Your task to perform on an android device: Open Google Chrome and open the bookmarks view Image 0: 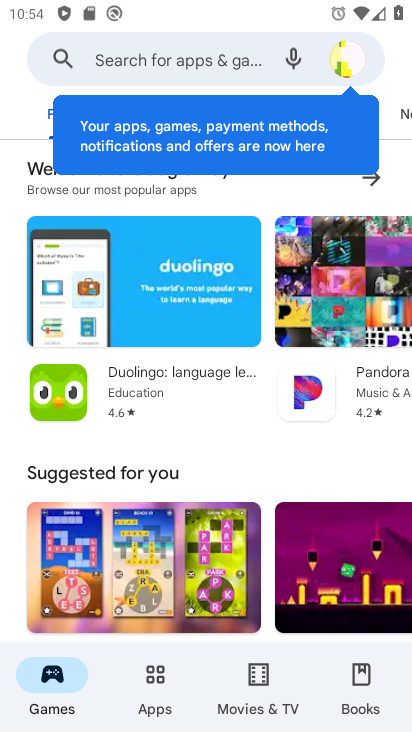
Step 0: press home button
Your task to perform on an android device: Open Google Chrome and open the bookmarks view Image 1: 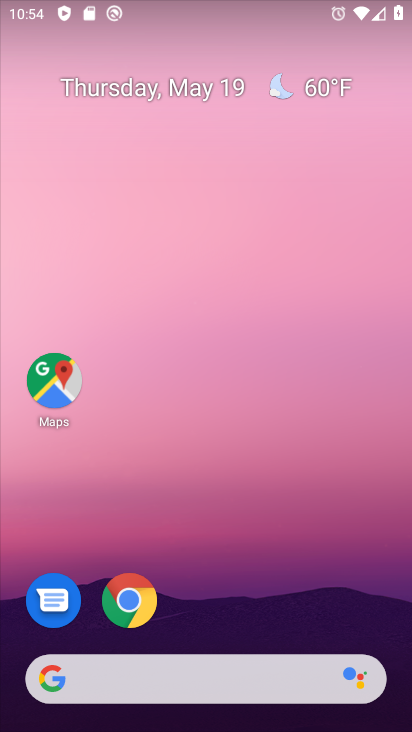
Step 1: drag from (346, 615) to (350, 207)
Your task to perform on an android device: Open Google Chrome and open the bookmarks view Image 2: 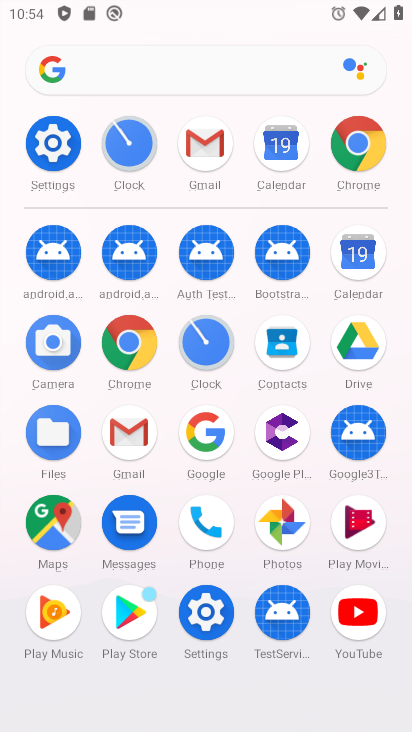
Step 2: click (354, 182)
Your task to perform on an android device: Open Google Chrome and open the bookmarks view Image 3: 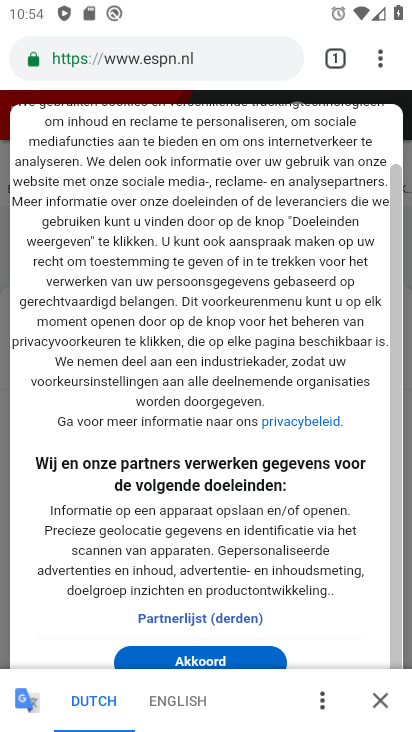
Step 3: drag from (362, 541) to (344, 447)
Your task to perform on an android device: Open Google Chrome and open the bookmarks view Image 4: 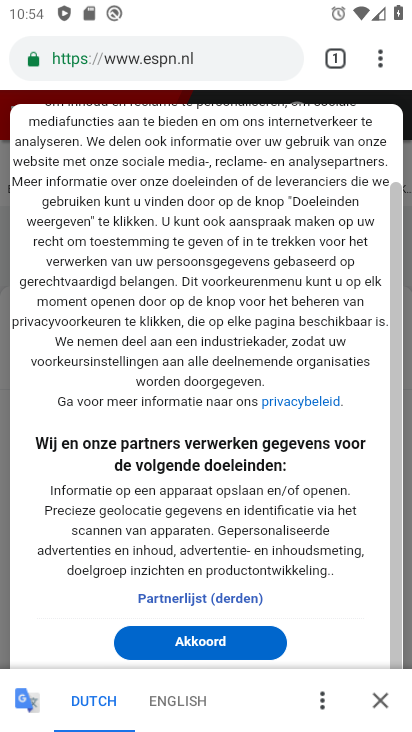
Step 4: drag from (334, 602) to (337, 494)
Your task to perform on an android device: Open Google Chrome and open the bookmarks view Image 5: 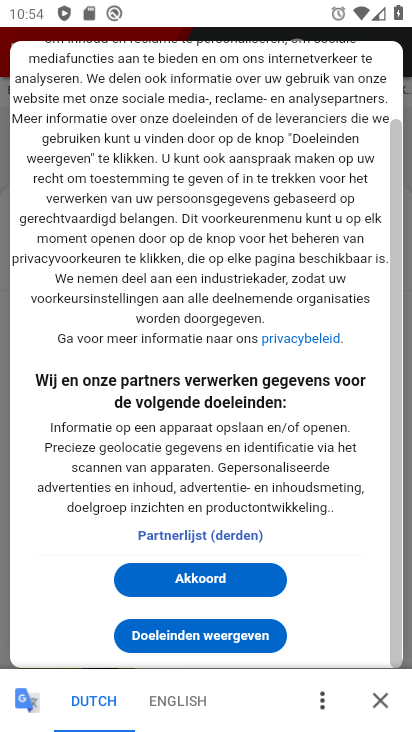
Step 5: click (337, 609)
Your task to perform on an android device: Open Google Chrome and open the bookmarks view Image 6: 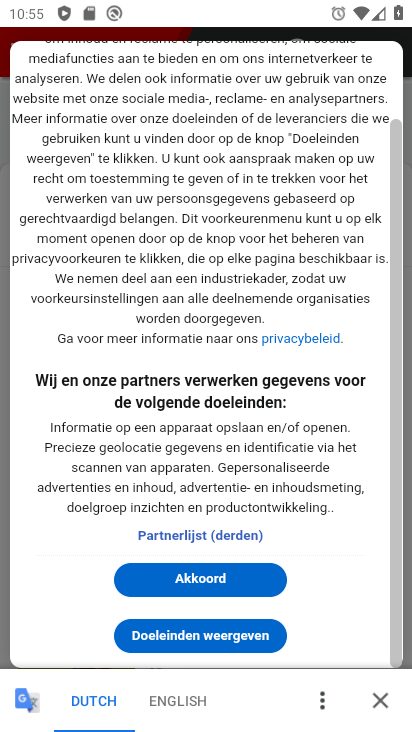
Step 6: drag from (252, 196) to (250, 370)
Your task to perform on an android device: Open Google Chrome and open the bookmarks view Image 7: 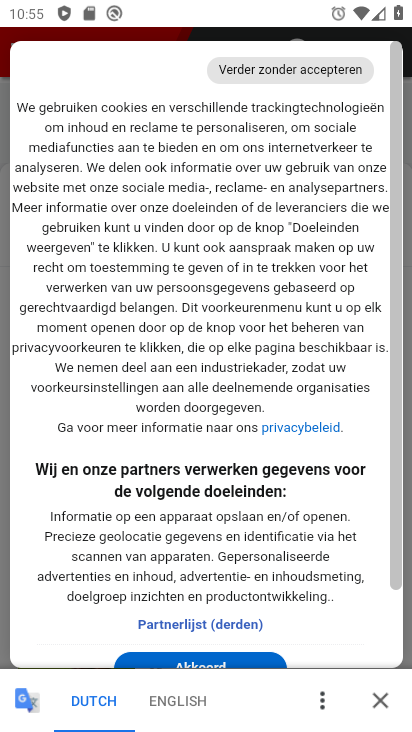
Step 7: drag from (254, 195) to (271, 415)
Your task to perform on an android device: Open Google Chrome and open the bookmarks view Image 8: 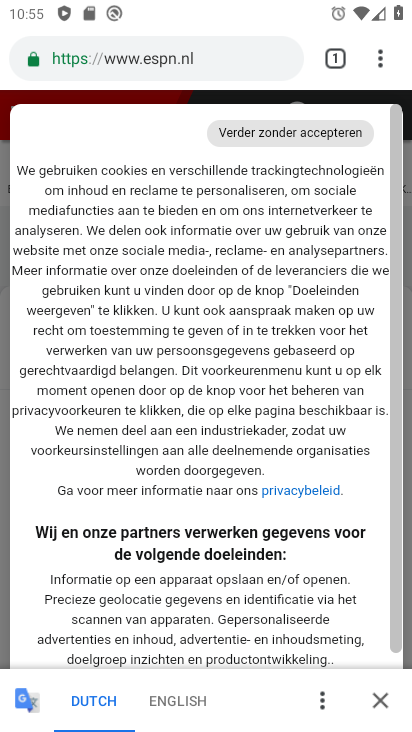
Step 8: click (380, 66)
Your task to perform on an android device: Open Google Chrome and open the bookmarks view Image 9: 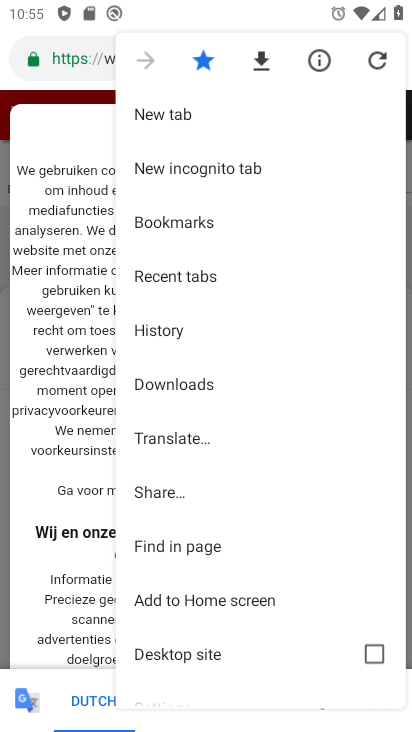
Step 9: drag from (328, 526) to (323, 414)
Your task to perform on an android device: Open Google Chrome and open the bookmarks view Image 10: 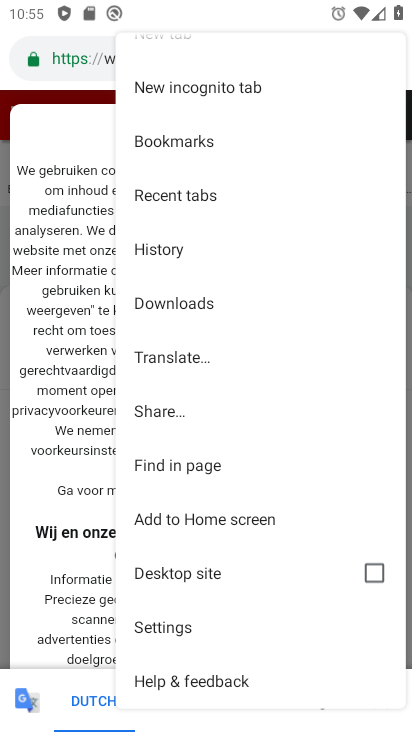
Step 10: click (205, 135)
Your task to perform on an android device: Open Google Chrome and open the bookmarks view Image 11: 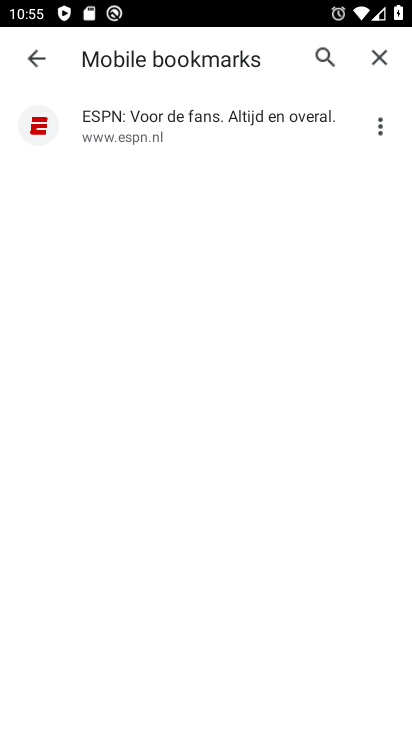
Step 11: task complete